Your task to perform on an android device: Open eBay Image 0: 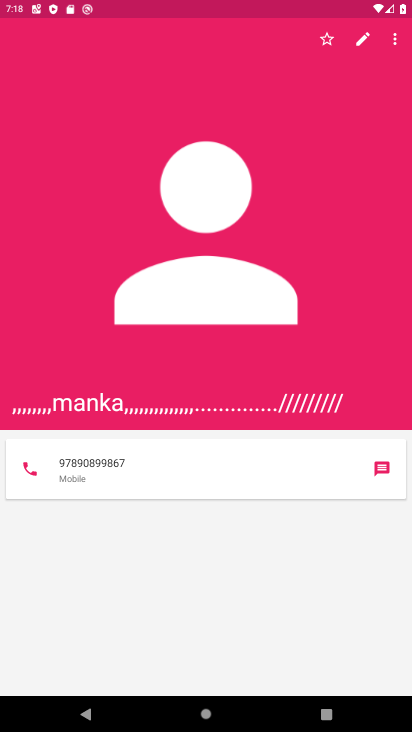
Step 0: press home button
Your task to perform on an android device: Open eBay Image 1: 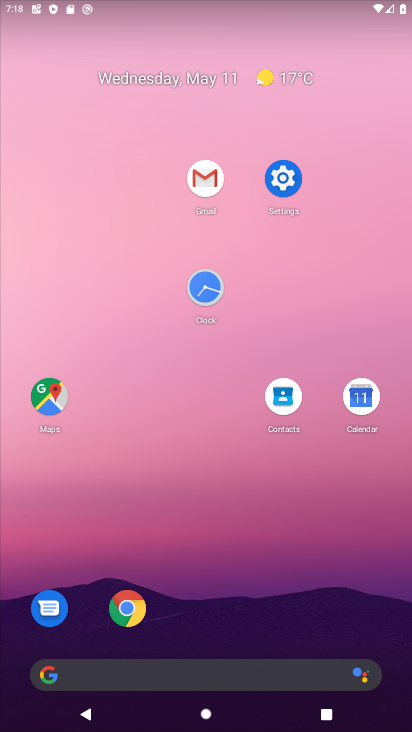
Step 1: click (131, 626)
Your task to perform on an android device: Open eBay Image 2: 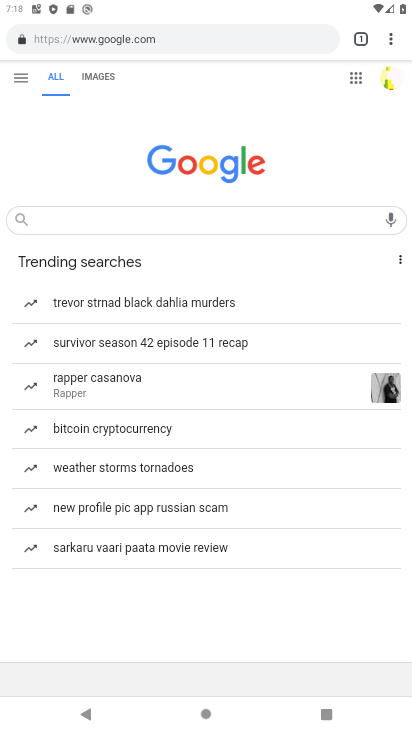
Step 2: click (192, 32)
Your task to perform on an android device: Open eBay Image 3: 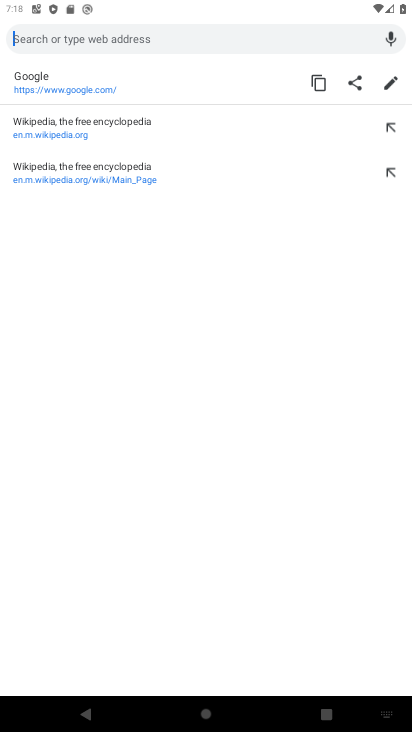
Step 3: type "ebay.com"
Your task to perform on an android device: Open eBay Image 4: 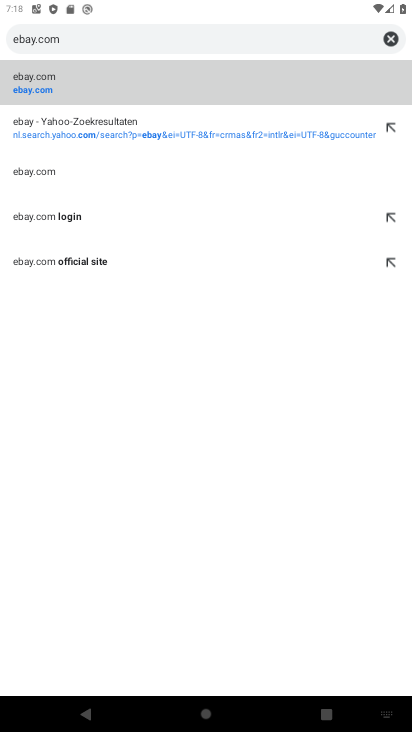
Step 4: click (86, 136)
Your task to perform on an android device: Open eBay Image 5: 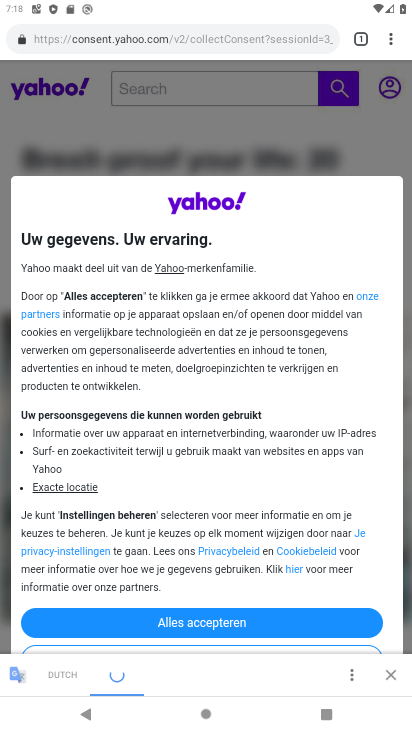
Step 5: task complete